Your task to perform on an android device: Check the news Image 0: 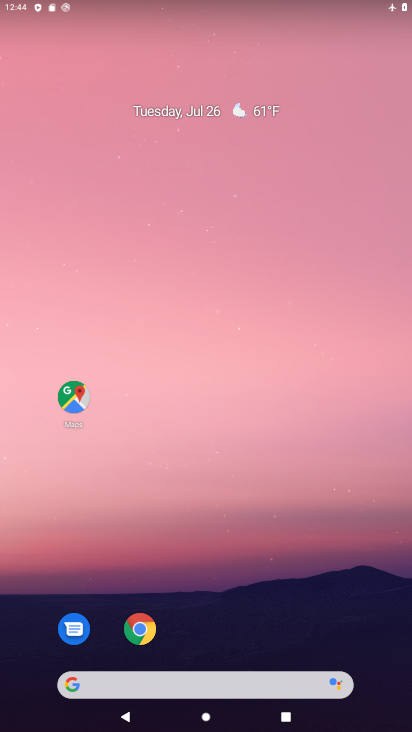
Step 0: drag from (188, 633) to (169, 12)
Your task to perform on an android device: Check the news Image 1: 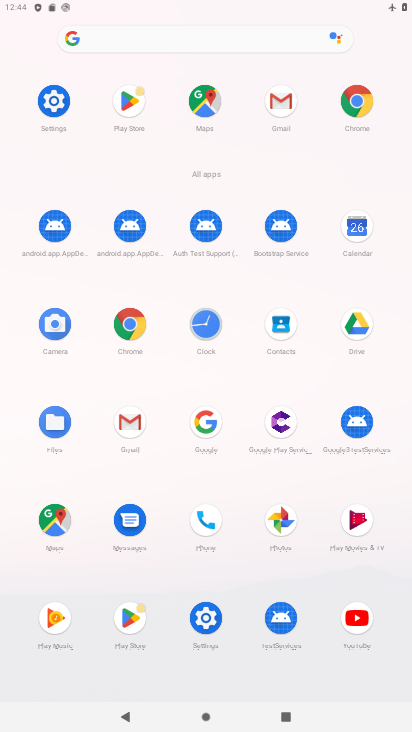
Step 1: click (186, 422)
Your task to perform on an android device: Check the news Image 2: 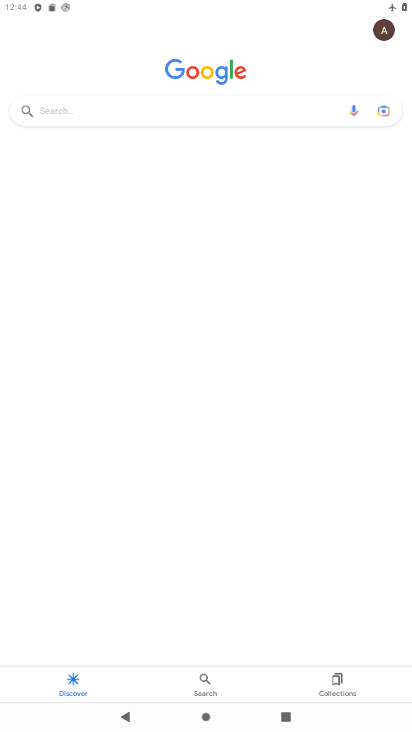
Step 2: click (139, 115)
Your task to perform on an android device: Check the news Image 3: 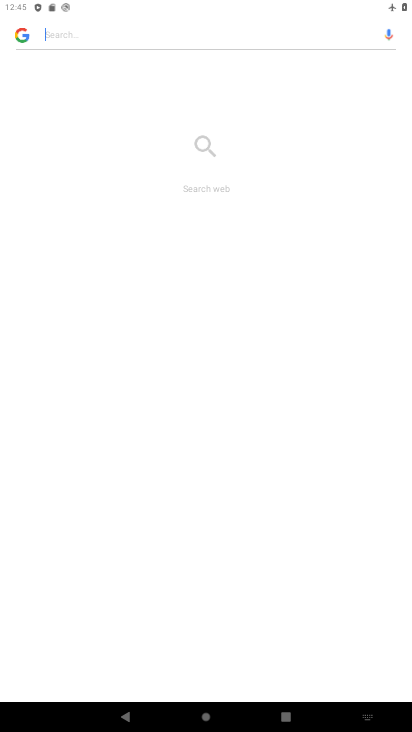
Step 3: task complete